Your task to perform on an android device: Open Google Maps and go to "Timeline" Image 0: 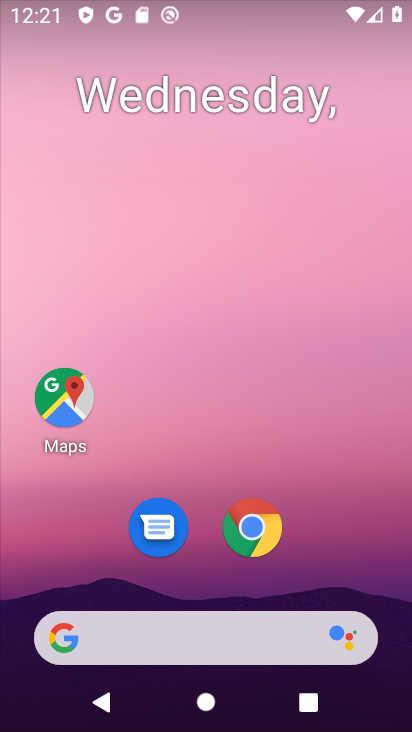
Step 0: click (47, 401)
Your task to perform on an android device: Open Google Maps and go to "Timeline" Image 1: 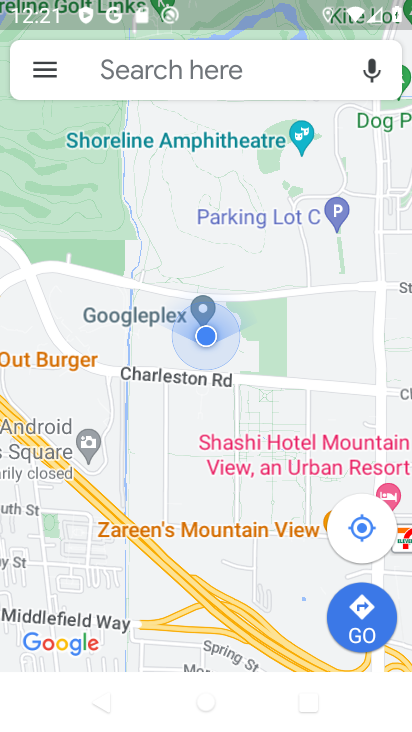
Step 1: click (47, 72)
Your task to perform on an android device: Open Google Maps and go to "Timeline" Image 2: 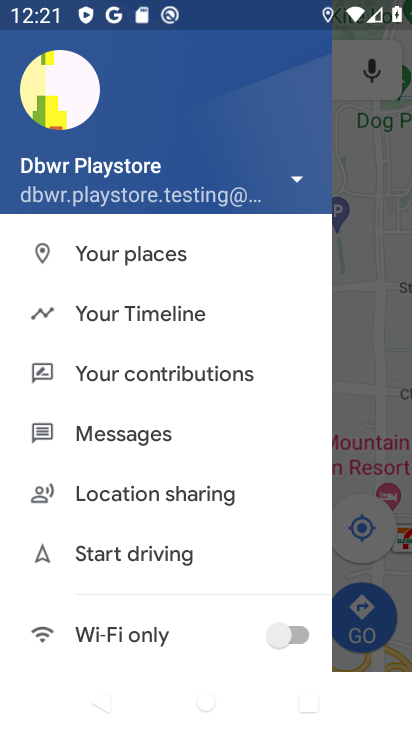
Step 2: click (86, 307)
Your task to perform on an android device: Open Google Maps and go to "Timeline" Image 3: 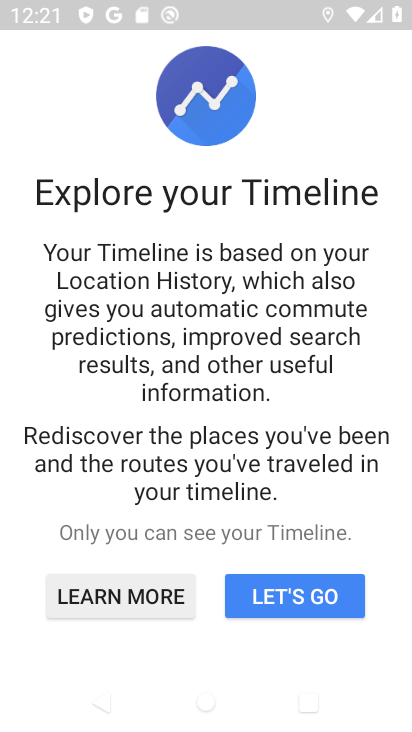
Step 3: click (294, 608)
Your task to perform on an android device: Open Google Maps and go to "Timeline" Image 4: 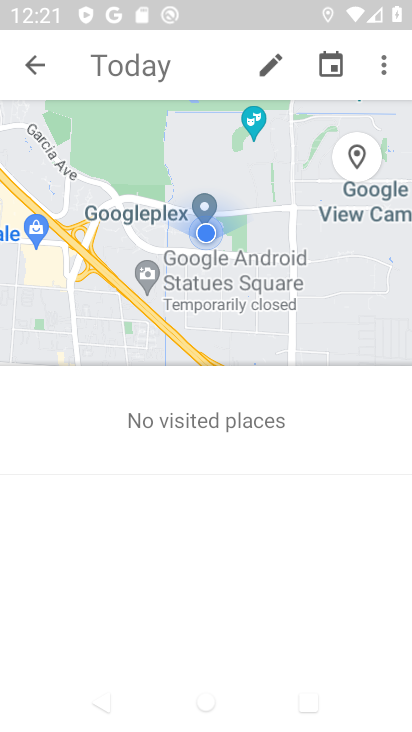
Step 4: task complete